Your task to perform on an android device: Go to CNN.com Image 0: 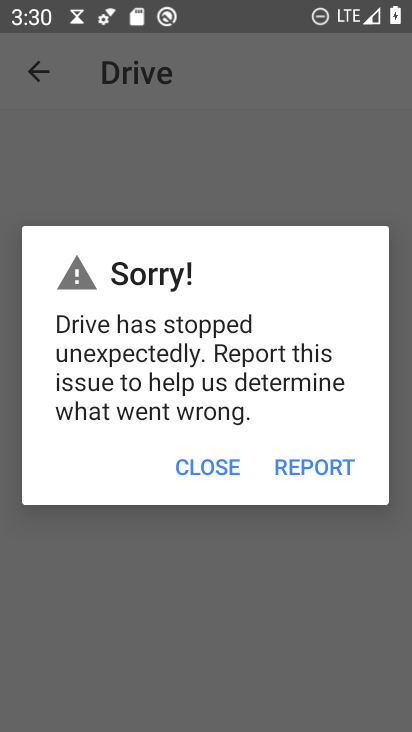
Step 0: press home button
Your task to perform on an android device: Go to CNN.com Image 1: 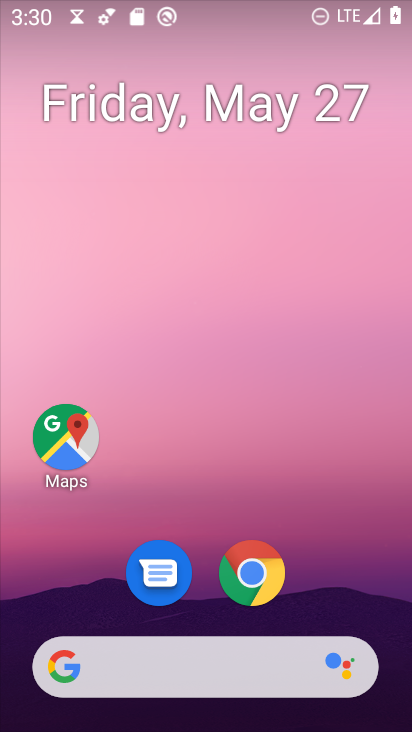
Step 1: click (255, 578)
Your task to perform on an android device: Go to CNN.com Image 2: 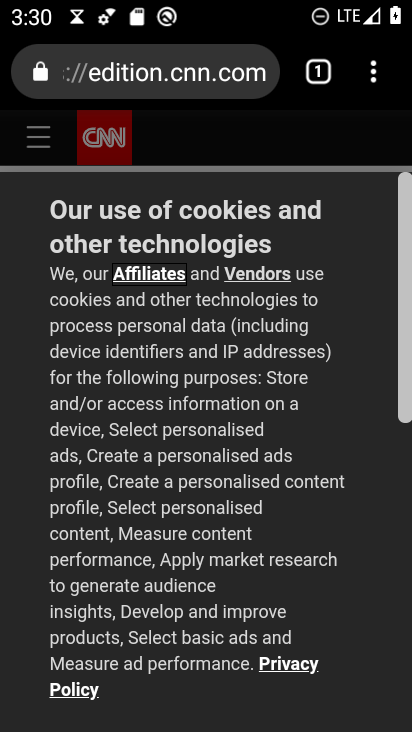
Step 2: task complete